Your task to perform on an android device: Open Android settings Image 0: 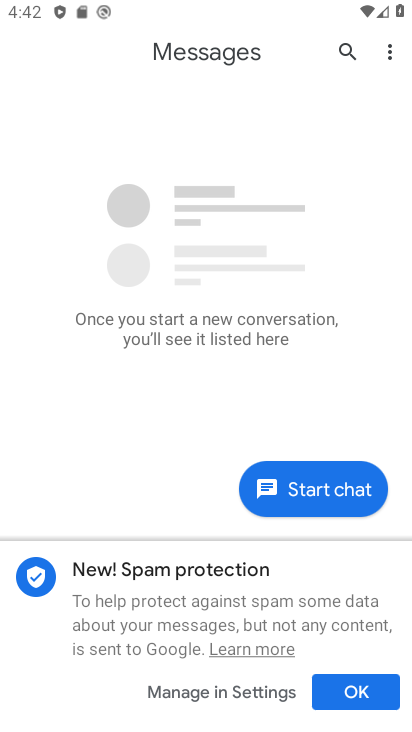
Step 0: press home button
Your task to perform on an android device: Open Android settings Image 1: 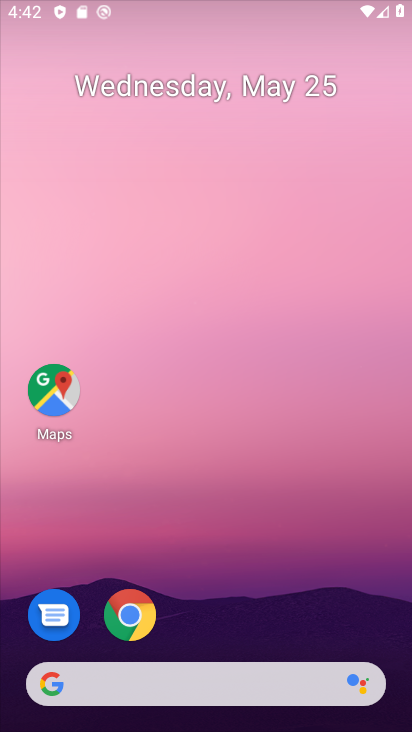
Step 1: drag from (299, 624) to (273, 98)
Your task to perform on an android device: Open Android settings Image 2: 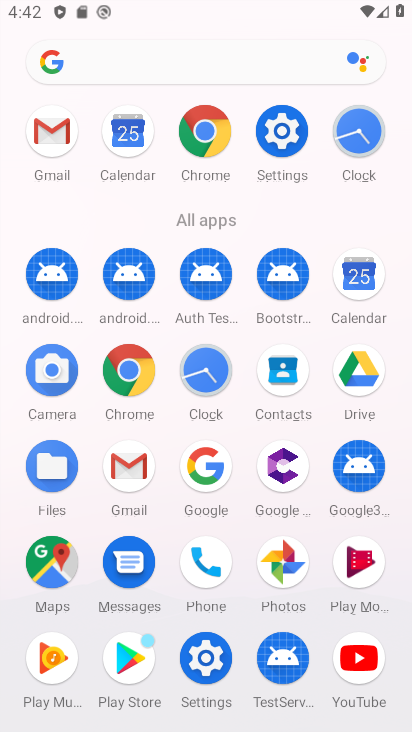
Step 2: click (287, 158)
Your task to perform on an android device: Open Android settings Image 3: 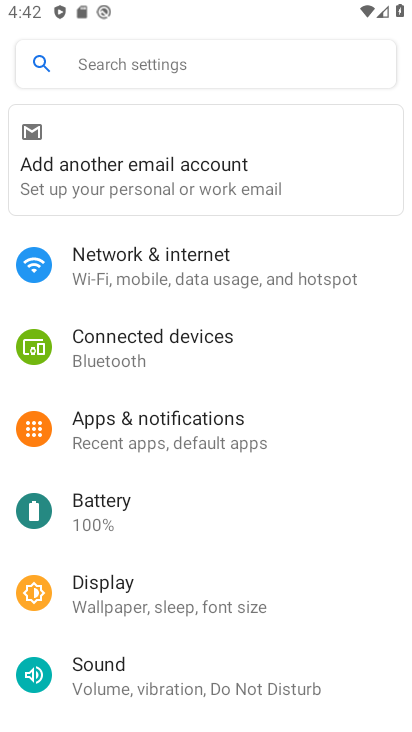
Step 3: drag from (230, 581) to (220, 176)
Your task to perform on an android device: Open Android settings Image 4: 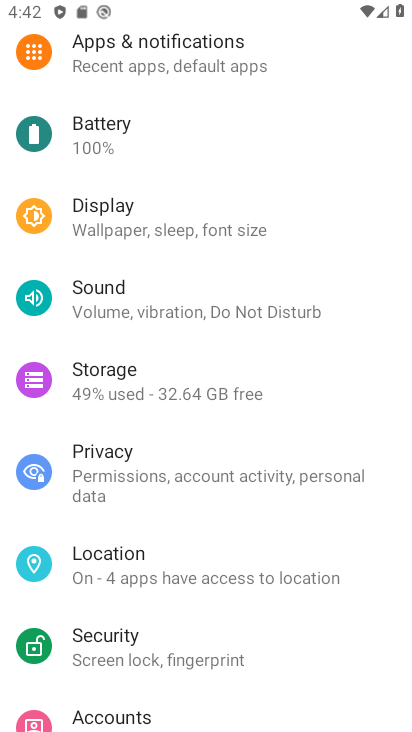
Step 4: drag from (180, 559) to (197, 171)
Your task to perform on an android device: Open Android settings Image 5: 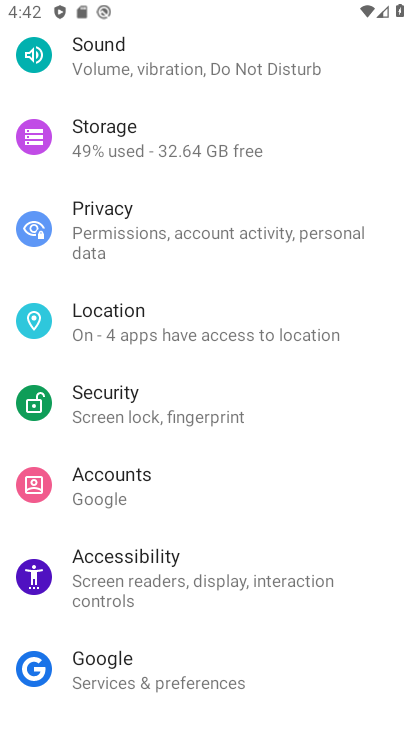
Step 5: drag from (88, 608) to (121, 165)
Your task to perform on an android device: Open Android settings Image 6: 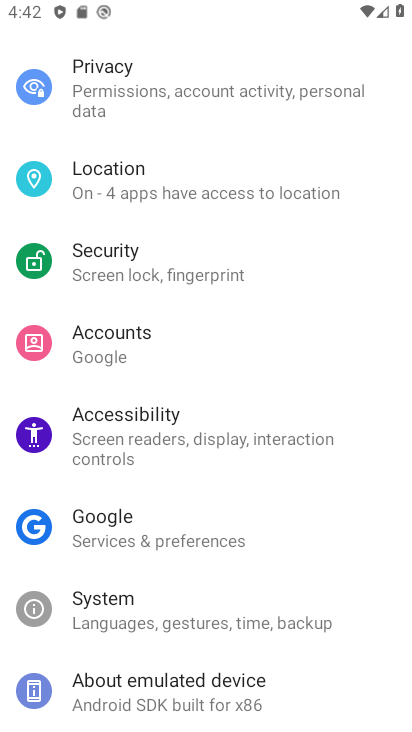
Step 6: click (197, 690)
Your task to perform on an android device: Open Android settings Image 7: 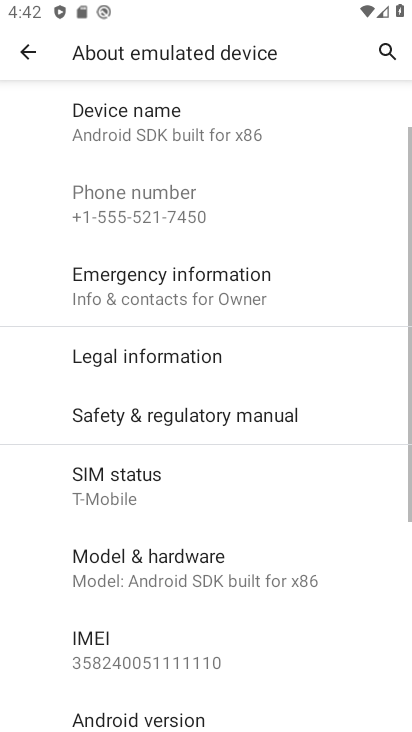
Step 7: drag from (189, 595) to (237, 283)
Your task to perform on an android device: Open Android settings Image 8: 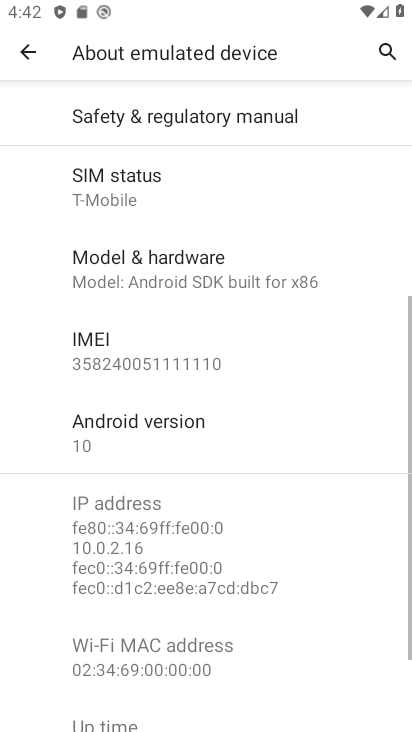
Step 8: click (198, 454)
Your task to perform on an android device: Open Android settings Image 9: 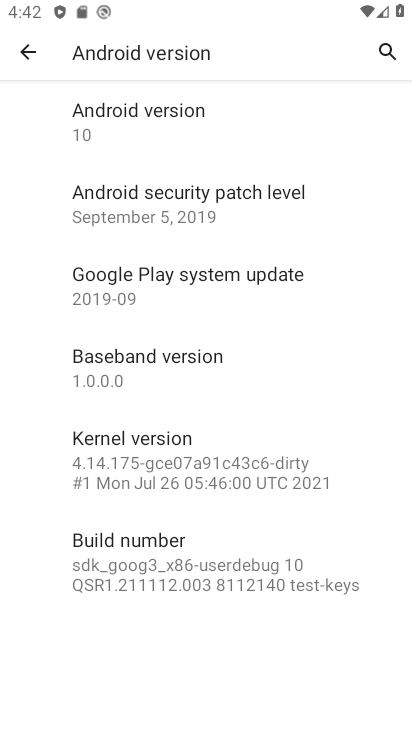
Step 9: task complete